Your task to perform on an android device: turn on data saver in the chrome app Image 0: 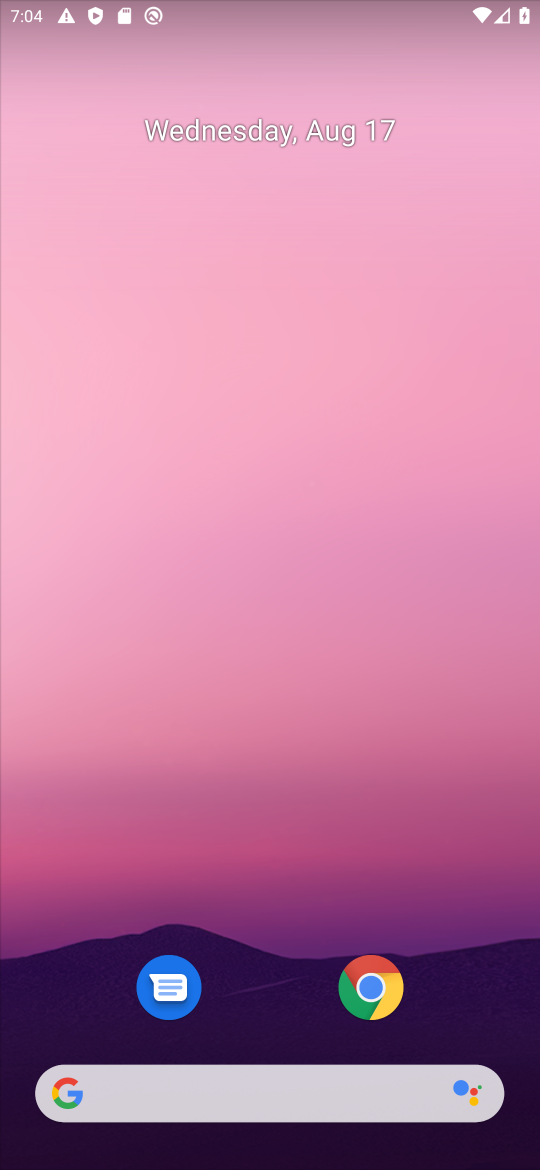
Step 0: drag from (497, 1037) to (212, 75)
Your task to perform on an android device: turn on data saver in the chrome app Image 1: 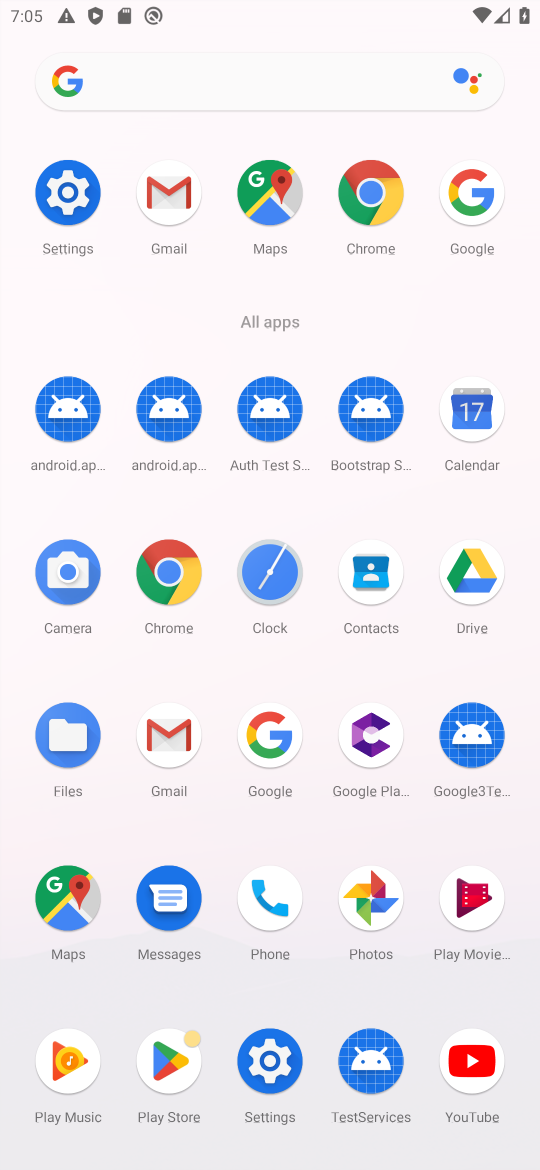
Step 1: click (175, 602)
Your task to perform on an android device: turn on data saver in the chrome app Image 2: 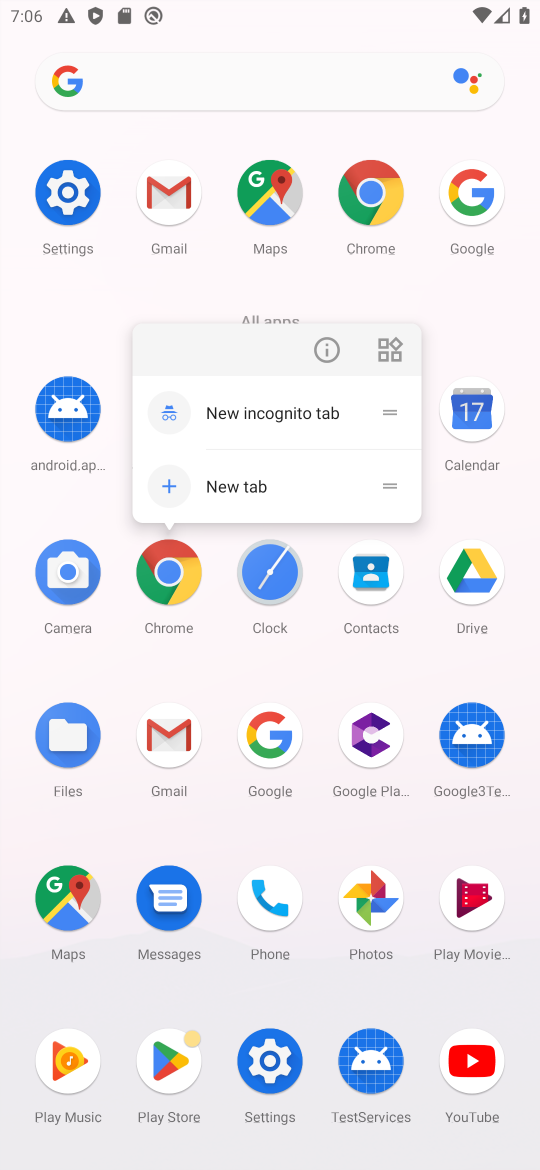
Step 2: click (175, 602)
Your task to perform on an android device: turn on data saver in the chrome app Image 3: 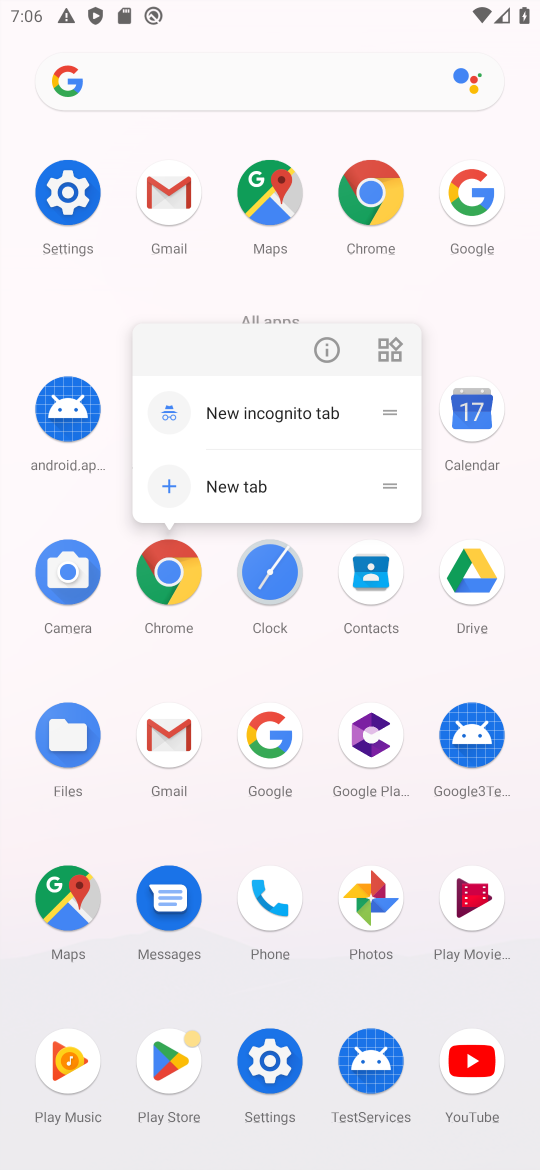
Step 3: click (175, 602)
Your task to perform on an android device: turn on data saver in the chrome app Image 4: 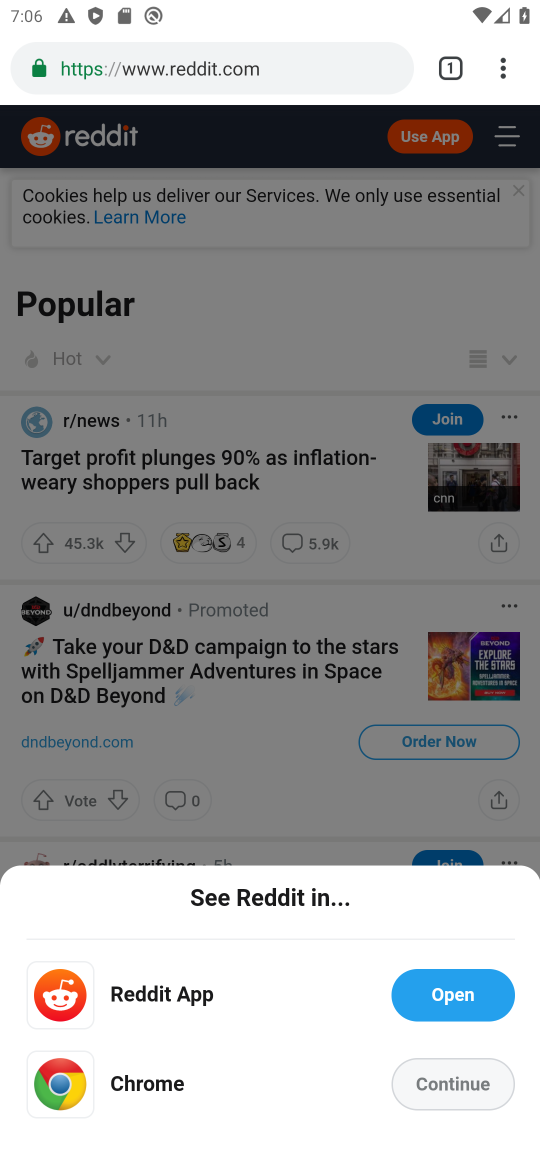
Step 4: click (501, 66)
Your task to perform on an android device: turn on data saver in the chrome app Image 5: 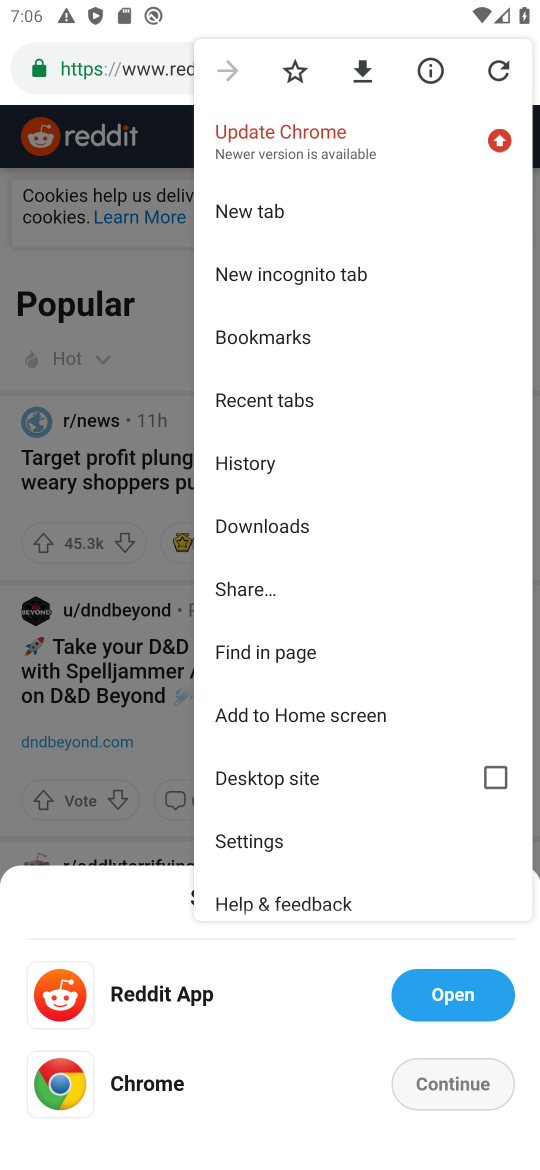
Step 5: click (289, 839)
Your task to perform on an android device: turn on data saver in the chrome app Image 6: 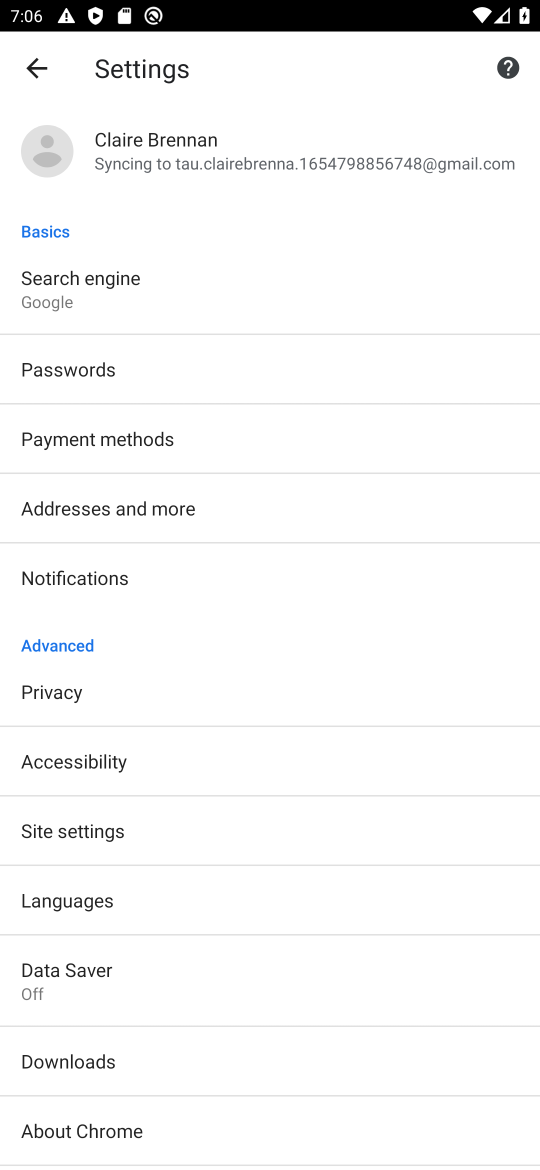
Step 6: click (105, 975)
Your task to perform on an android device: turn on data saver in the chrome app Image 7: 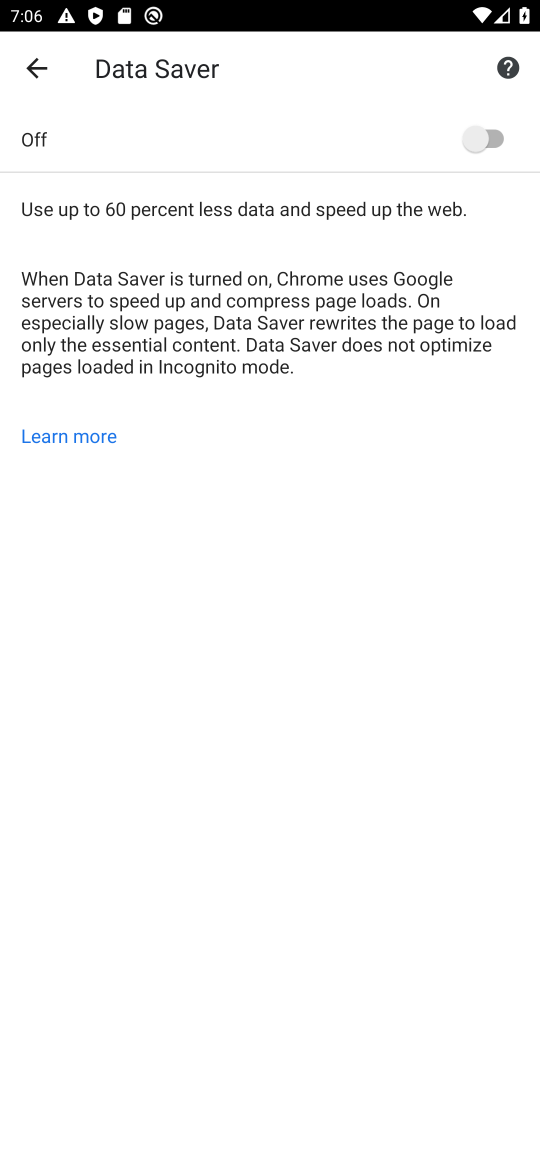
Step 7: click (450, 161)
Your task to perform on an android device: turn on data saver in the chrome app Image 8: 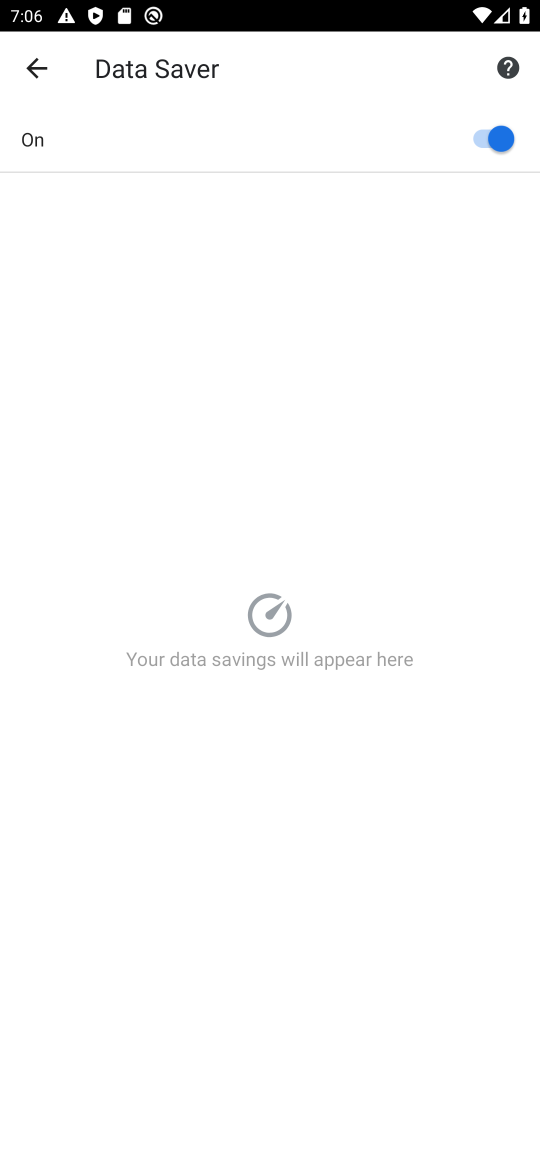
Step 8: task complete